Your task to perform on an android device: turn pop-ups on in chrome Image 0: 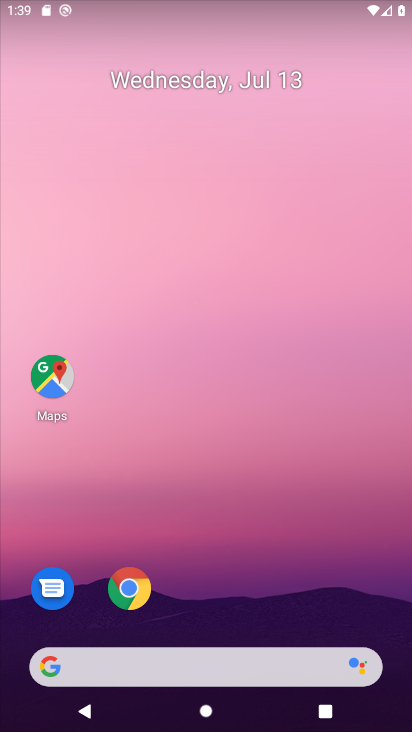
Step 0: click (146, 598)
Your task to perform on an android device: turn pop-ups on in chrome Image 1: 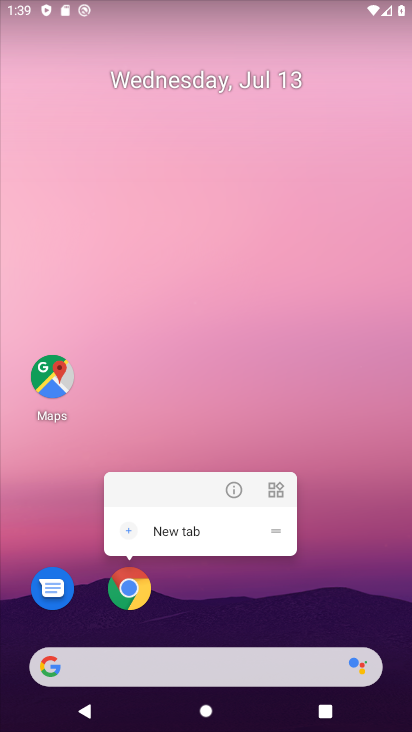
Step 1: click (135, 594)
Your task to perform on an android device: turn pop-ups on in chrome Image 2: 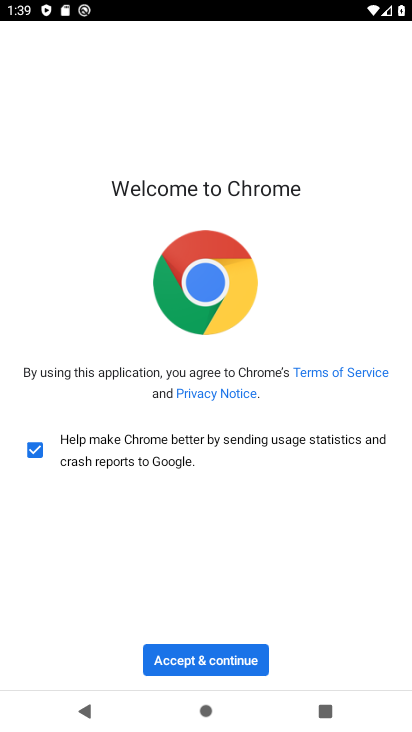
Step 2: click (223, 650)
Your task to perform on an android device: turn pop-ups on in chrome Image 3: 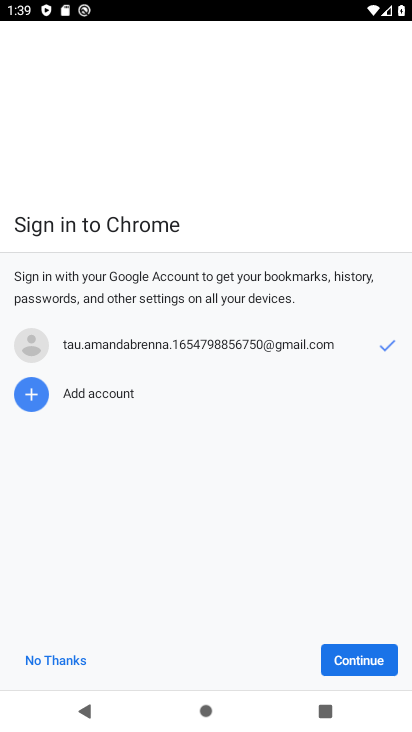
Step 3: click (361, 670)
Your task to perform on an android device: turn pop-ups on in chrome Image 4: 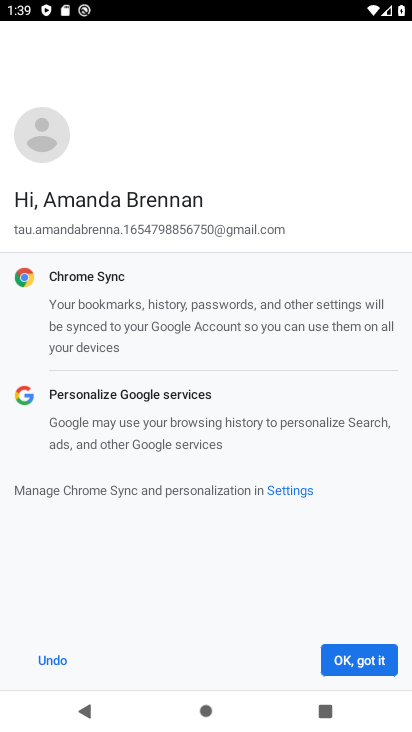
Step 4: click (365, 659)
Your task to perform on an android device: turn pop-ups on in chrome Image 5: 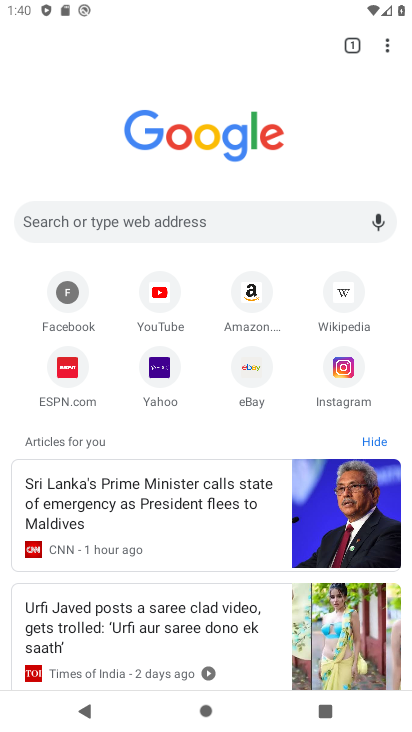
Step 5: drag from (385, 40) to (223, 375)
Your task to perform on an android device: turn pop-ups on in chrome Image 6: 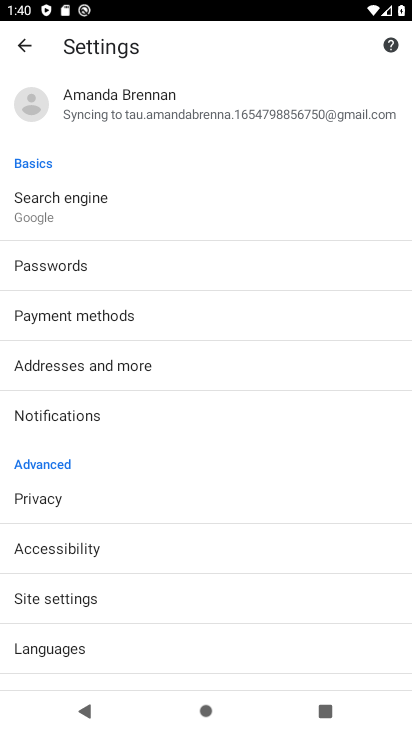
Step 6: click (109, 598)
Your task to perform on an android device: turn pop-ups on in chrome Image 7: 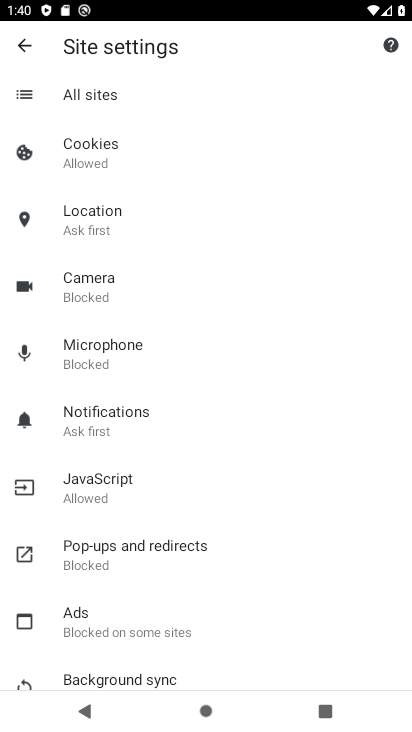
Step 7: click (152, 551)
Your task to perform on an android device: turn pop-ups on in chrome Image 8: 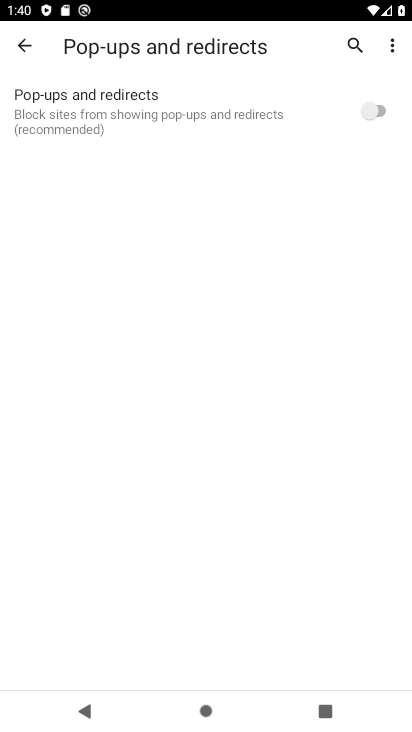
Step 8: click (366, 115)
Your task to perform on an android device: turn pop-ups on in chrome Image 9: 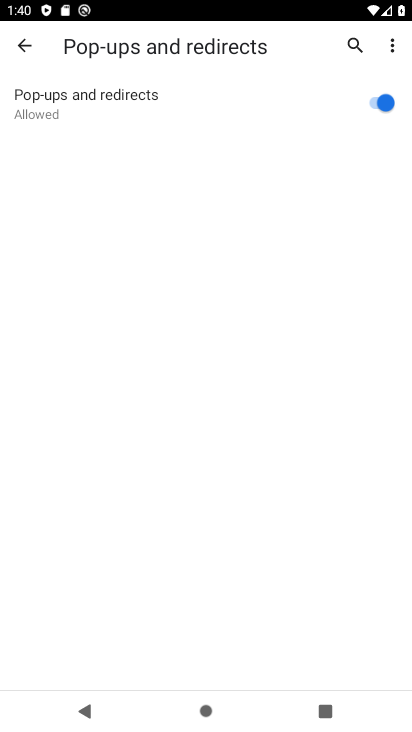
Step 9: task complete